Your task to perform on an android device: turn off javascript in the chrome app Image 0: 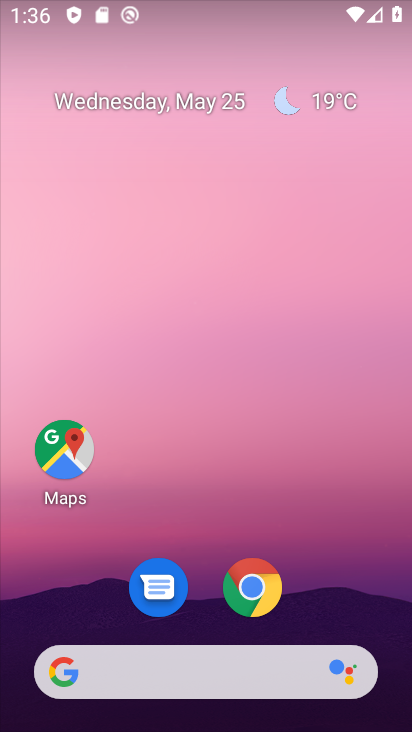
Step 0: click (264, 591)
Your task to perform on an android device: turn off javascript in the chrome app Image 1: 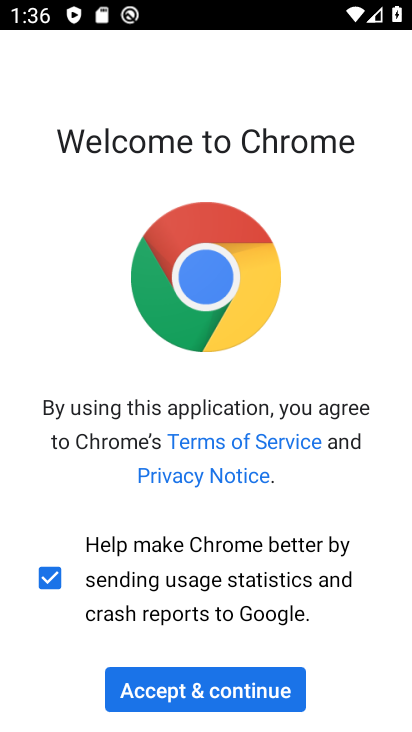
Step 1: click (202, 692)
Your task to perform on an android device: turn off javascript in the chrome app Image 2: 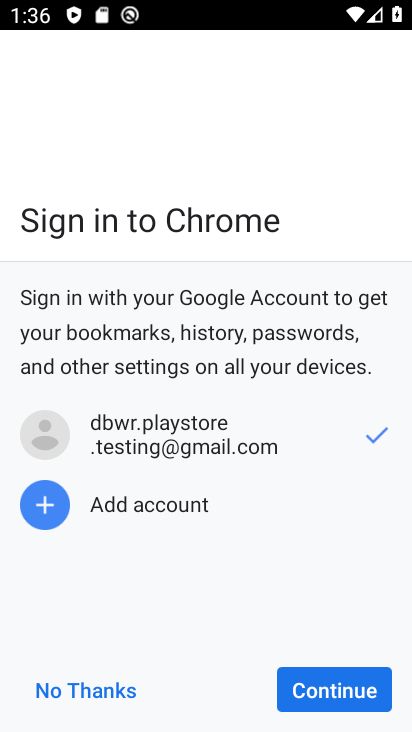
Step 2: click (357, 690)
Your task to perform on an android device: turn off javascript in the chrome app Image 3: 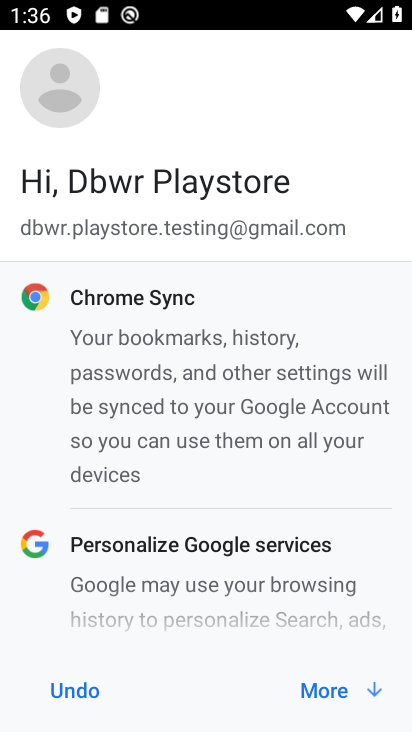
Step 3: click (325, 691)
Your task to perform on an android device: turn off javascript in the chrome app Image 4: 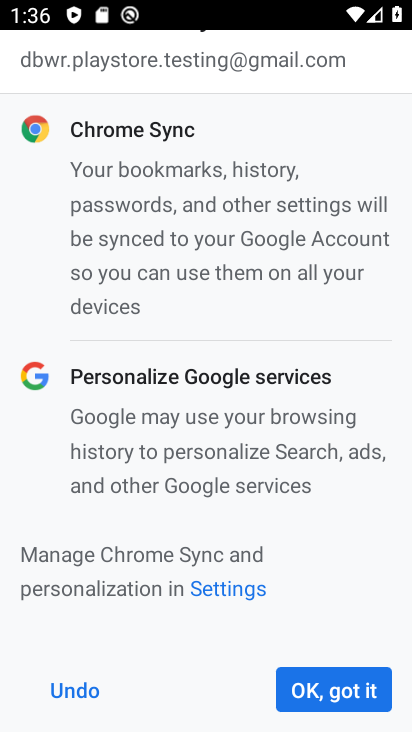
Step 4: click (325, 691)
Your task to perform on an android device: turn off javascript in the chrome app Image 5: 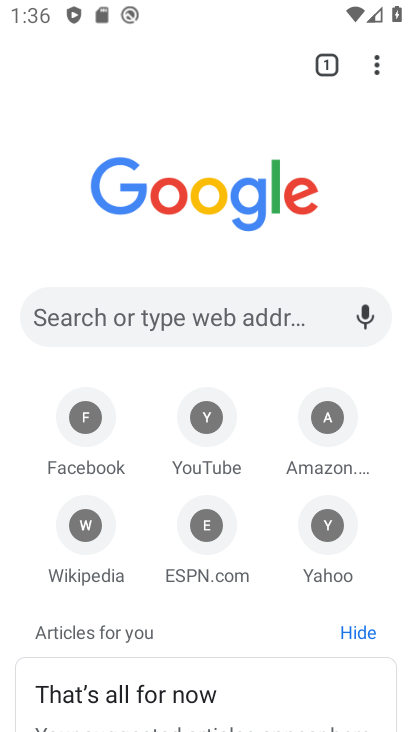
Step 5: click (367, 66)
Your task to perform on an android device: turn off javascript in the chrome app Image 6: 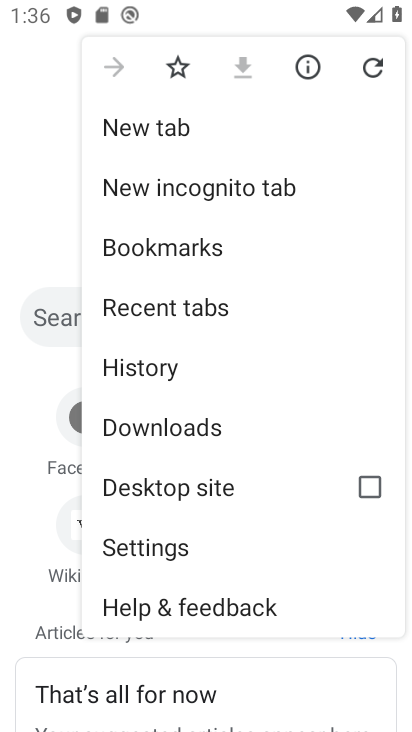
Step 6: click (201, 545)
Your task to perform on an android device: turn off javascript in the chrome app Image 7: 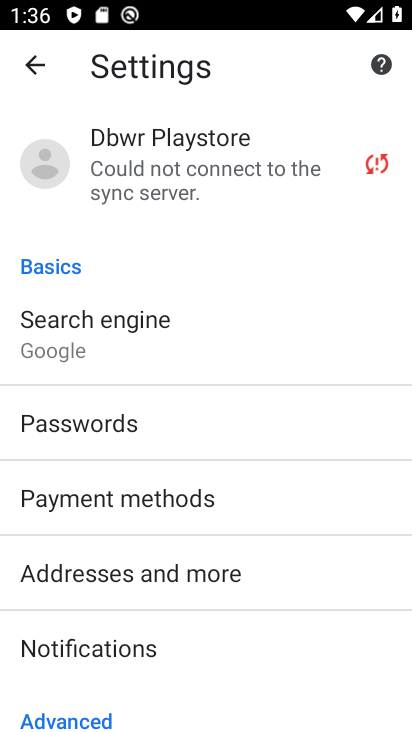
Step 7: drag from (285, 635) to (292, 269)
Your task to perform on an android device: turn off javascript in the chrome app Image 8: 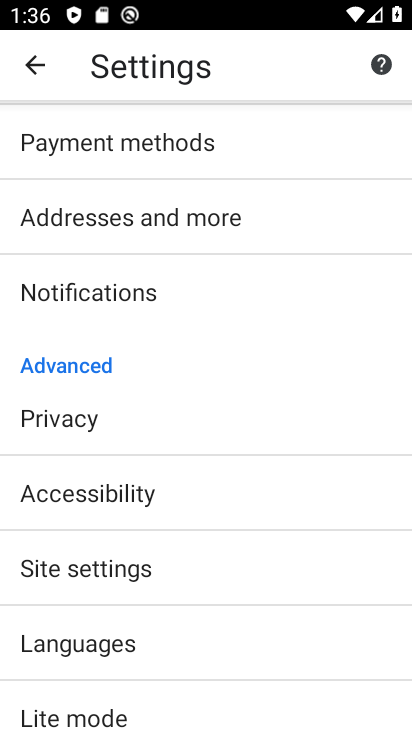
Step 8: click (120, 566)
Your task to perform on an android device: turn off javascript in the chrome app Image 9: 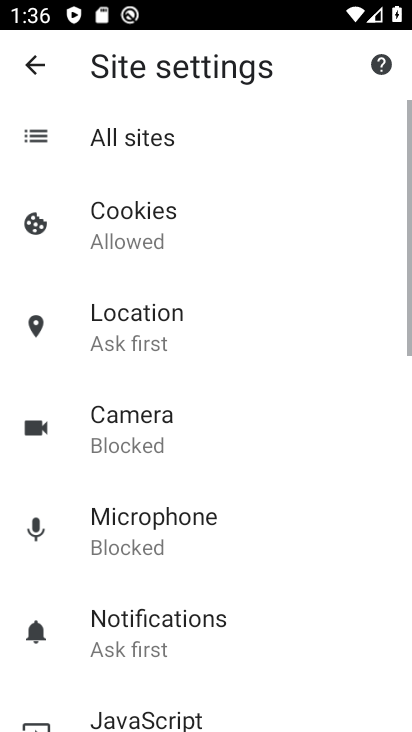
Step 9: drag from (198, 675) to (253, 339)
Your task to perform on an android device: turn off javascript in the chrome app Image 10: 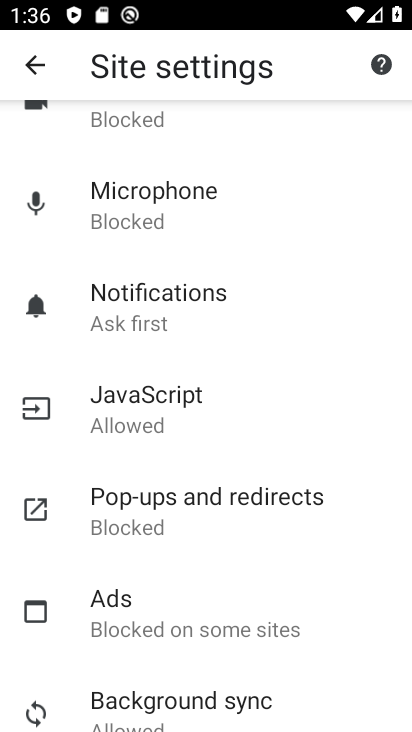
Step 10: click (183, 413)
Your task to perform on an android device: turn off javascript in the chrome app Image 11: 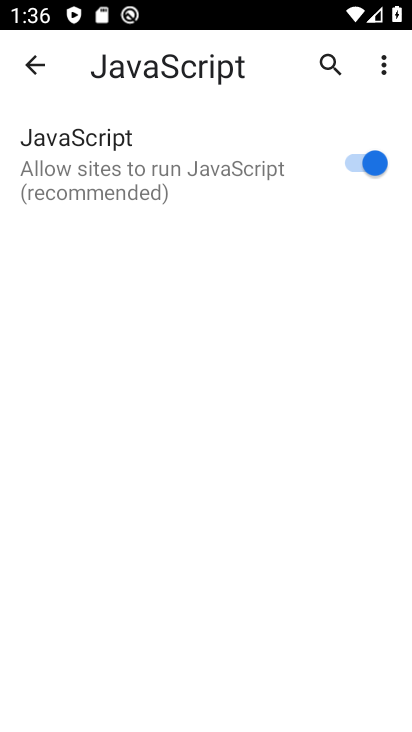
Step 11: click (388, 157)
Your task to perform on an android device: turn off javascript in the chrome app Image 12: 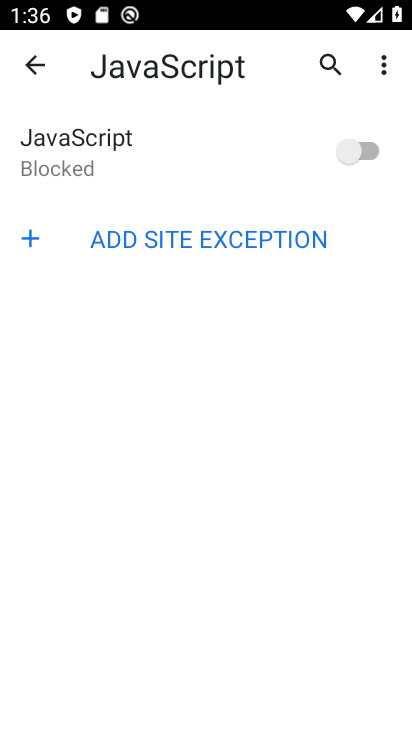
Step 12: task complete